Your task to perform on an android device: Open the calendar and show me this week's events? Image 0: 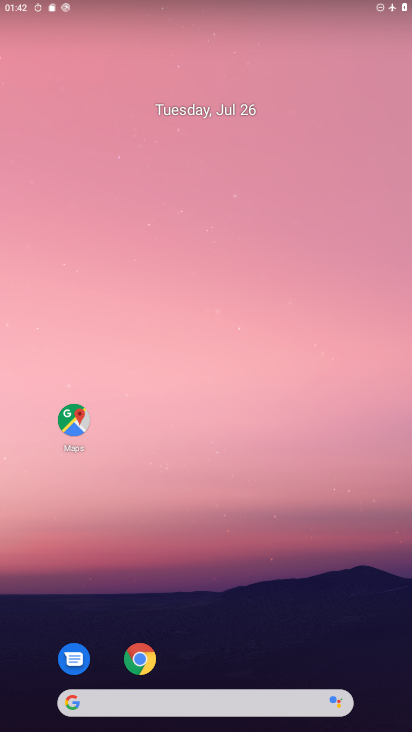
Step 0: drag from (43, 698) to (203, 96)
Your task to perform on an android device: Open the calendar and show me this week's events? Image 1: 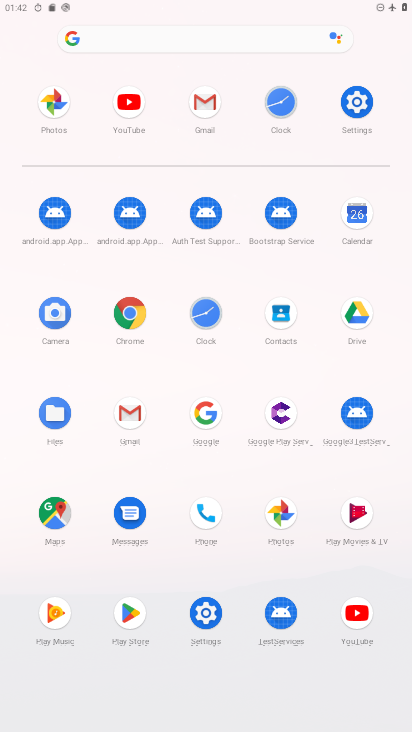
Step 1: click (353, 533)
Your task to perform on an android device: Open the calendar and show me this week's events? Image 2: 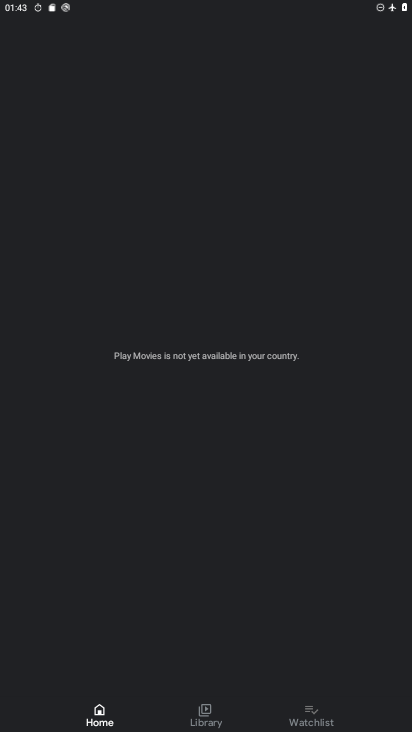
Step 2: click (326, 710)
Your task to perform on an android device: Open the calendar and show me this week's events? Image 3: 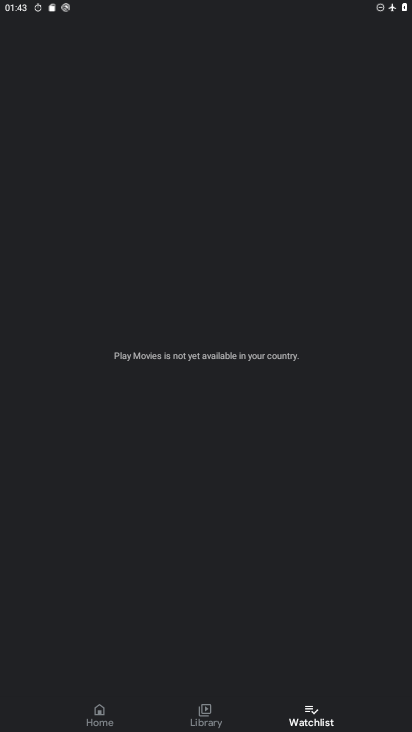
Step 3: press home button
Your task to perform on an android device: Open the calendar and show me this week's events? Image 4: 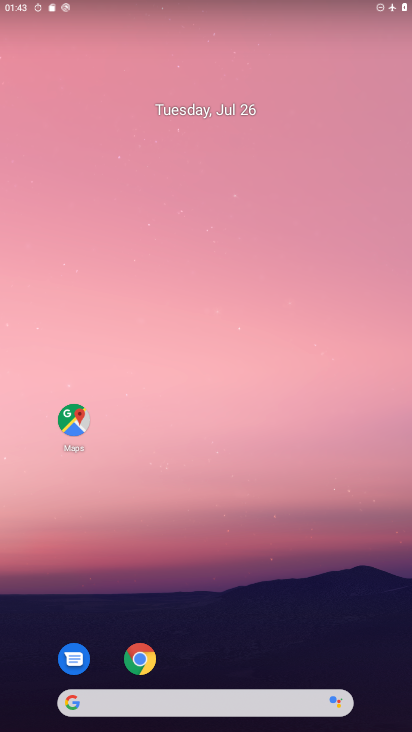
Step 4: drag from (48, 648) to (192, 240)
Your task to perform on an android device: Open the calendar and show me this week's events? Image 5: 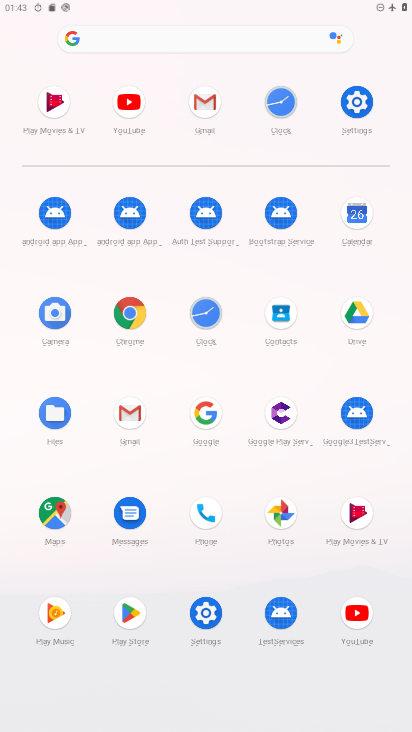
Step 5: click (356, 219)
Your task to perform on an android device: Open the calendar and show me this week's events? Image 6: 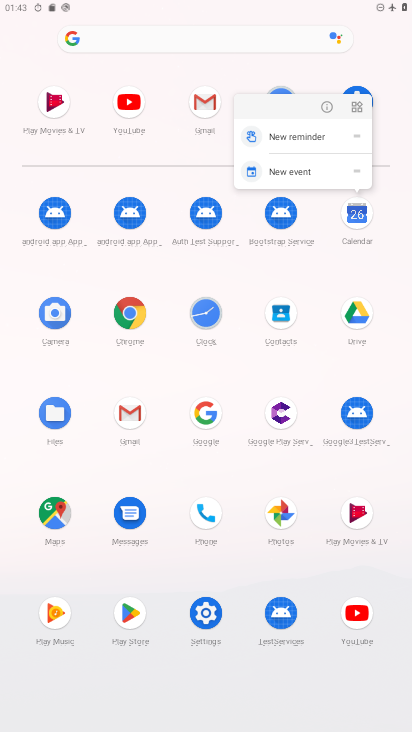
Step 6: click (361, 213)
Your task to perform on an android device: Open the calendar and show me this week's events? Image 7: 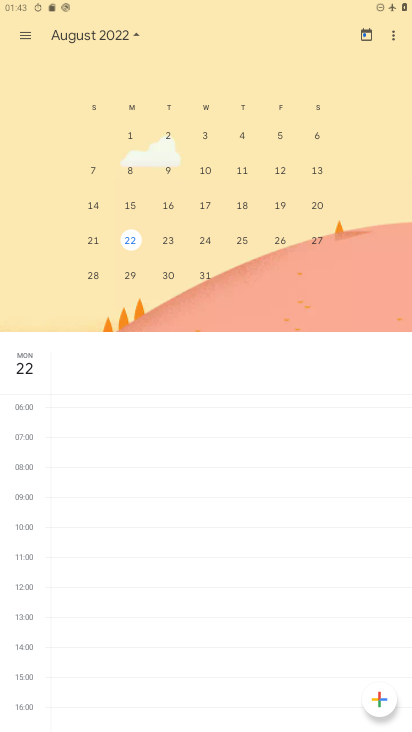
Step 7: task complete